Your task to perform on an android device: Open sound settings Image 0: 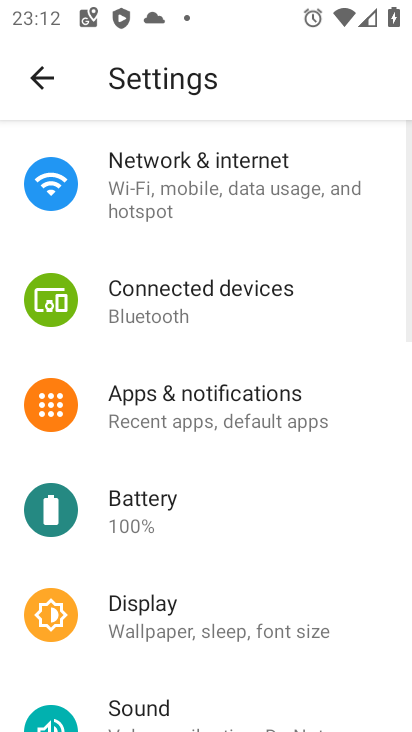
Step 0: click (163, 708)
Your task to perform on an android device: Open sound settings Image 1: 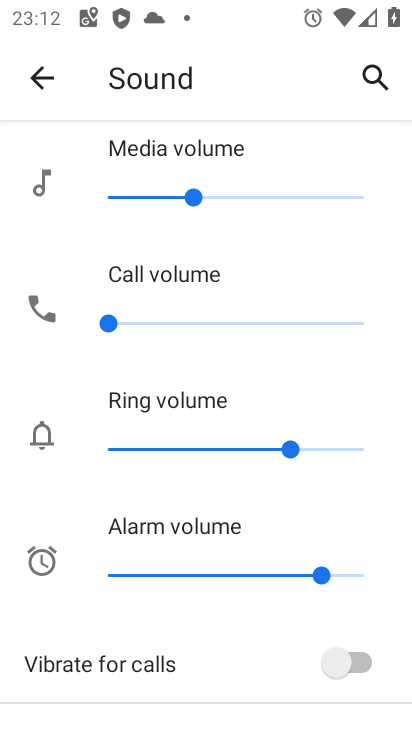
Step 1: task complete